Your task to perform on an android device: turn off smart reply in the gmail app Image 0: 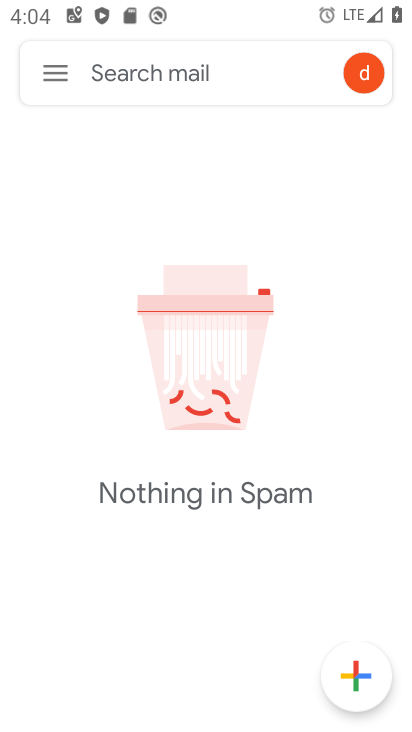
Step 0: press home button
Your task to perform on an android device: turn off smart reply in the gmail app Image 1: 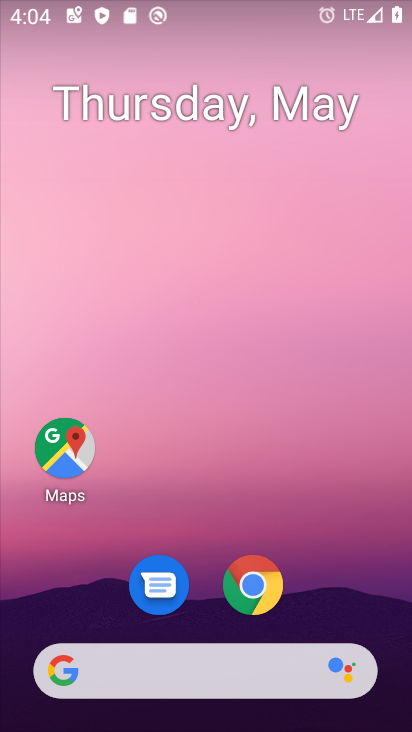
Step 1: drag from (209, 512) to (202, 102)
Your task to perform on an android device: turn off smart reply in the gmail app Image 2: 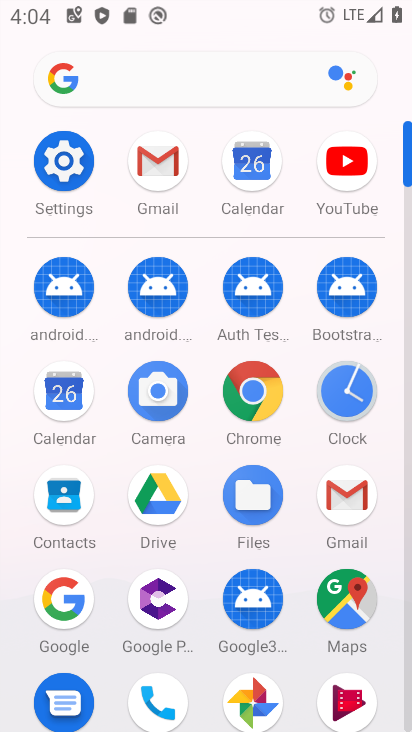
Step 2: click (68, 163)
Your task to perform on an android device: turn off smart reply in the gmail app Image 3: 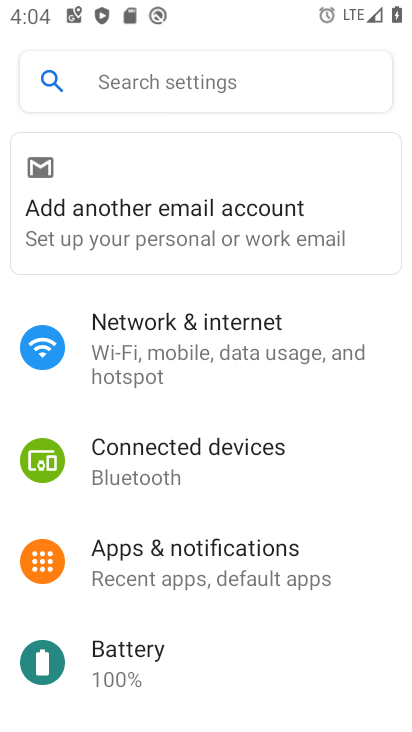
Step 3: press home button
Your task to perform on an android device: turn off smart reply in the gmail app Image 4: 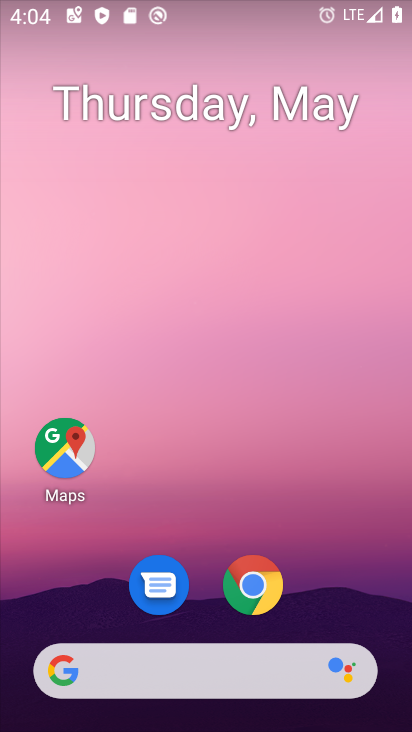
Step 4: drag from (229, 513) to (265, 70)
Your task to perform on an android device: turn off smart reply in the gmail app Image 5: 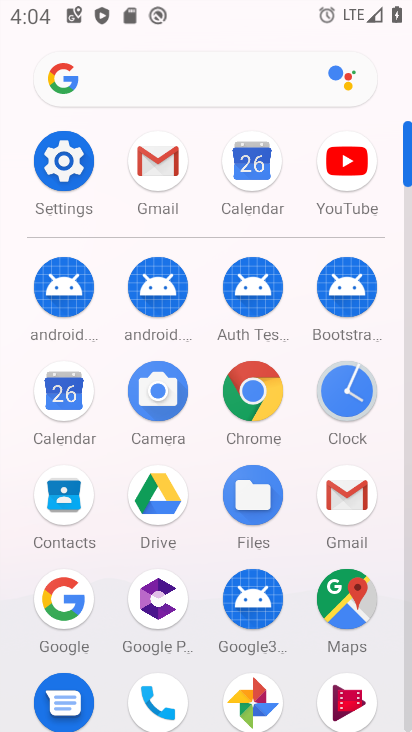
Step 5: click (157, 160)
Your task to perform on an android device: turn off smart reply in the gmail app Image 6: 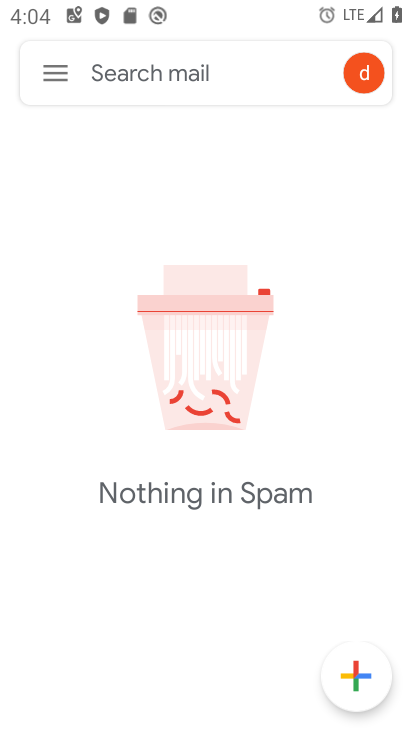
Step 6: click (57, 71)
Your task to perform on an android device: turn off smart reply in the gmail app Image 7: 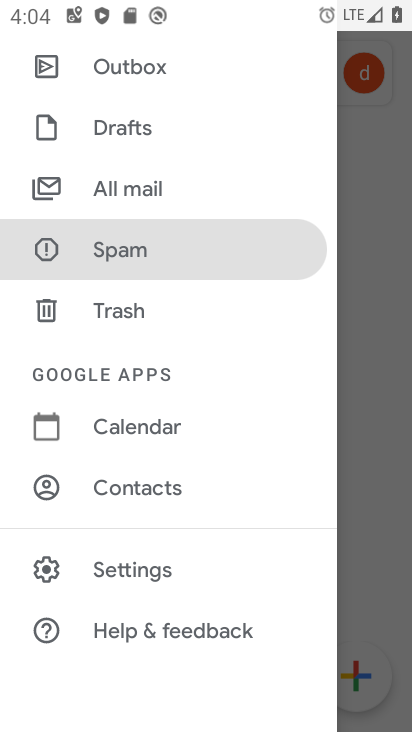
Step 7: click (134, 563)
Your task to perform on an android device: turn off smart reply in the gmail app Image 8: 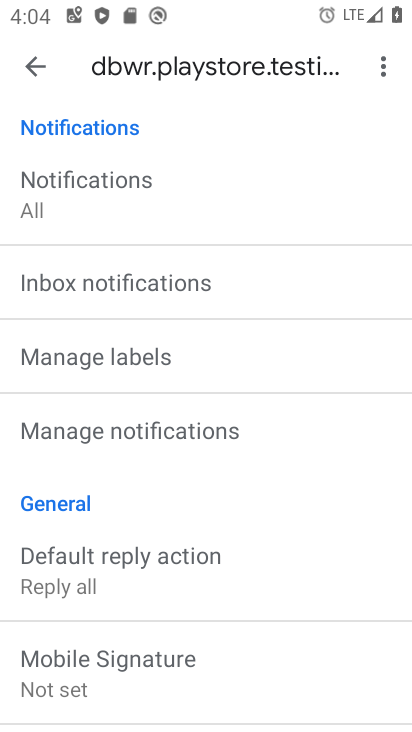
Step 8: drag from (260, 531) to (264, 123)
Your task to perform on an android device: turn off smart reply in the gmail app Image 9: 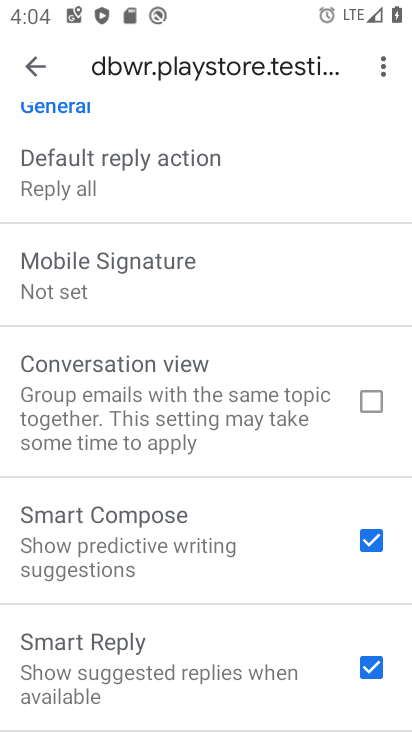
Step 9: click (373, 669)
Your task to perform on an android device: turn off smart reply in the gmail app Image 10: 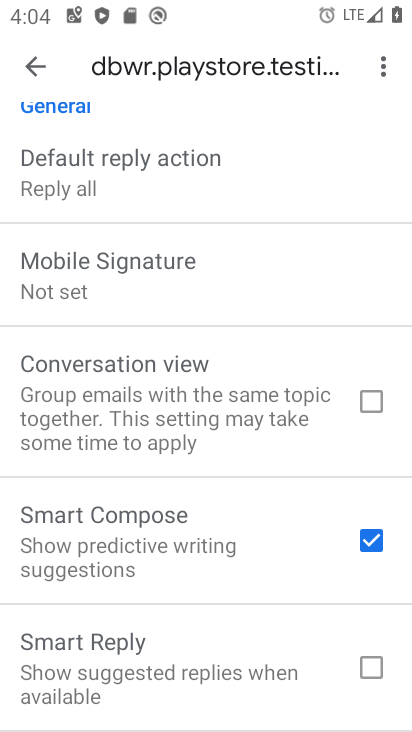
Step 10: task complete